Your task to perform on an android device: Go to CNN.com Image 0: 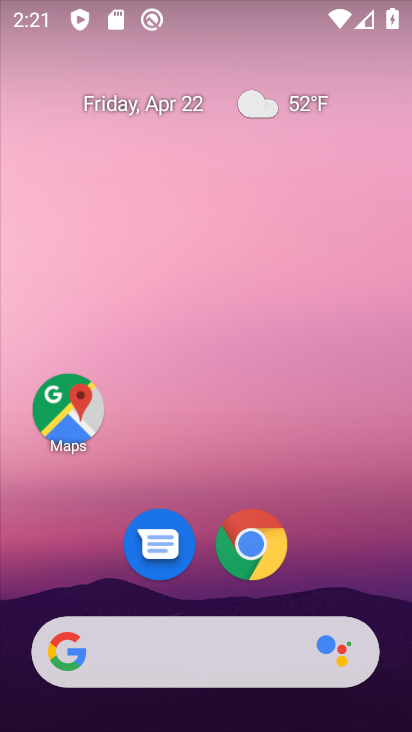
Step 0: click (153, 664)
Your task to perform on an android device: Go to CNN.com Image 1: 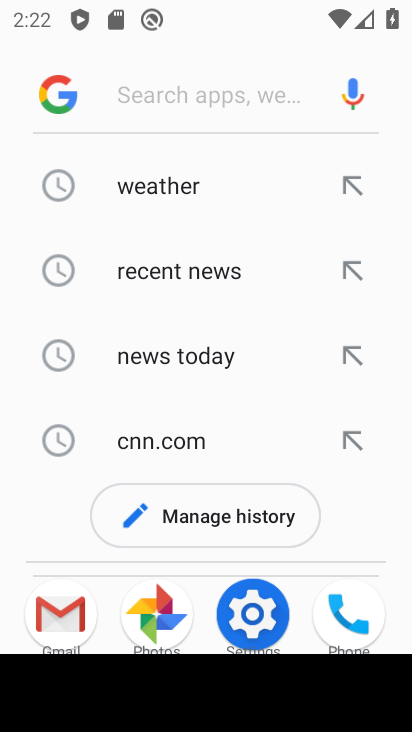
Step 1: click (245, 457)
Your task to perform on an android device: Go to CNN.com Image 2: 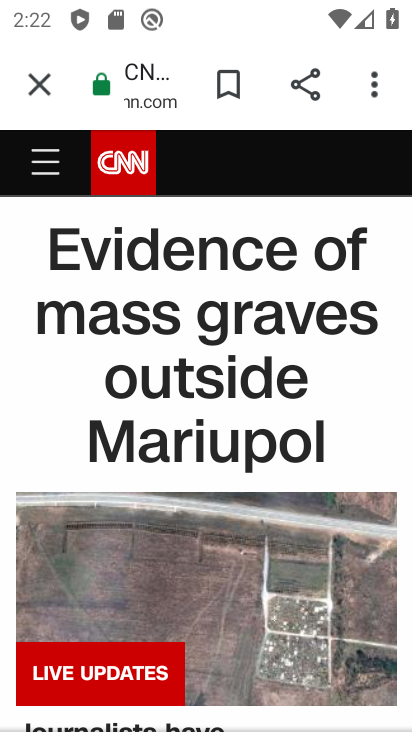
Step 2: task complete